Your task to perform on an android device: Open Chrome and go to the settings page Image 0: 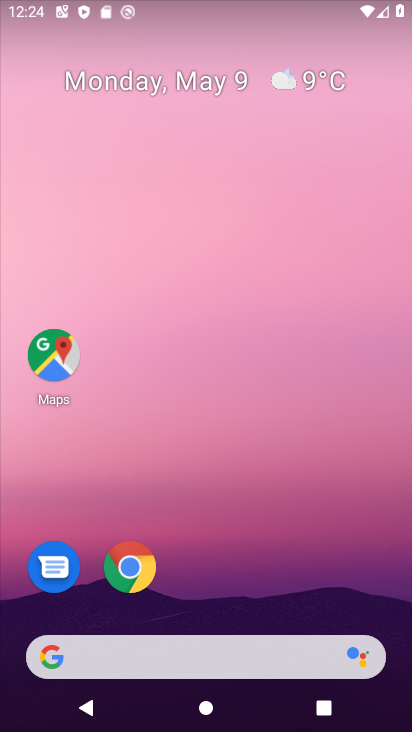
Step 0: drag from (258, 676) to (149, 235)
Your task to perform on an android device: Open Chrome and go to the settings page Image 1: 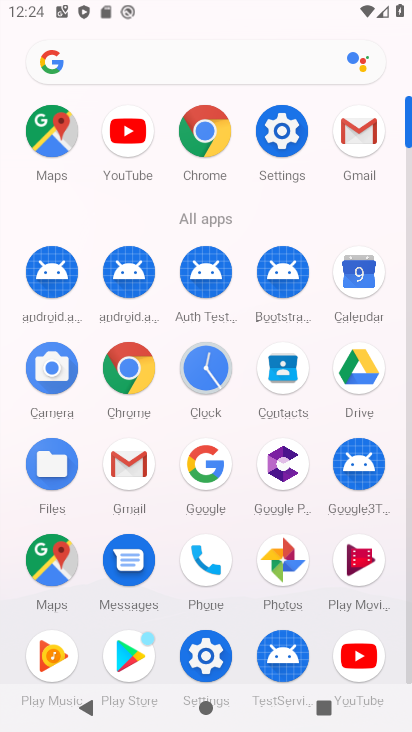
Step 1: click (208, 141)
Your task to perform on an android device: Open Chrome and go to the settings page Image 2: 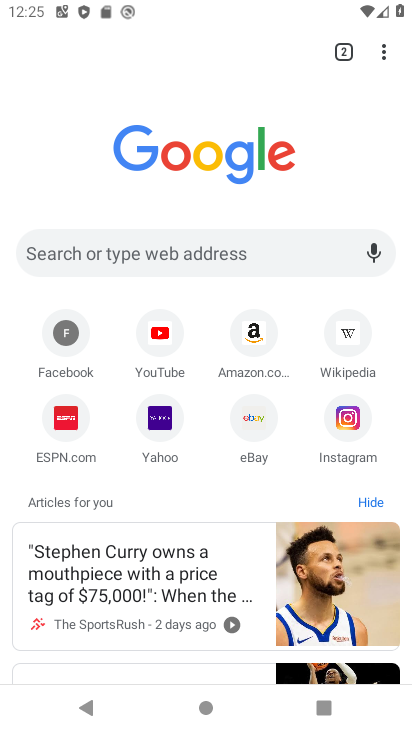
Step 2: click (378, 77)
Your task to perform on an android device: Open Chrome and go to the settings page Image 3: 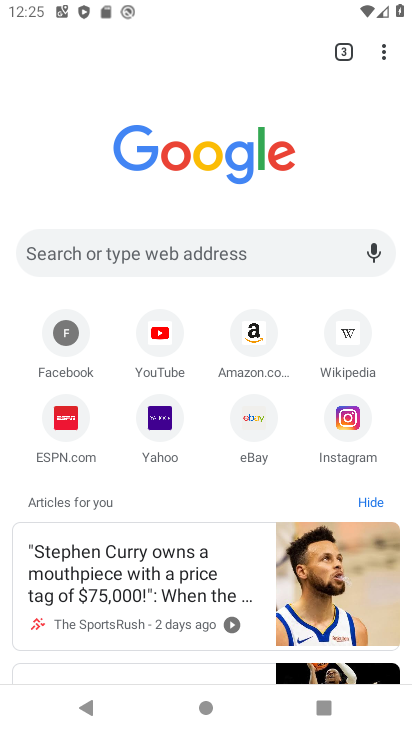
Step 3: click (381, 62)
Your task to perform on an android device: Open Chrome and go to the settings page Image 4: 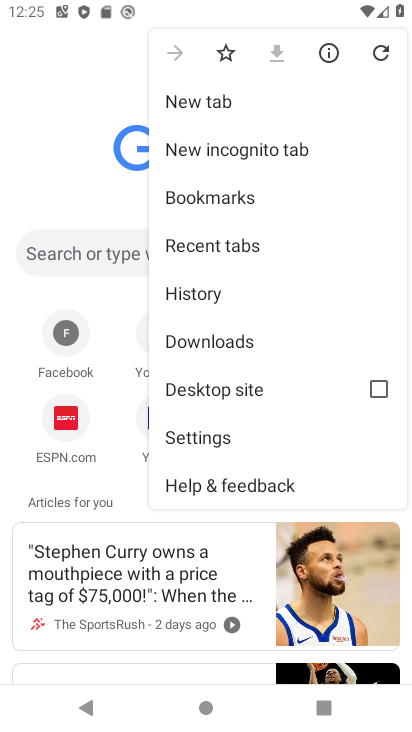
Step 4: click (186, 436)
Your task to perform on an android device: Open Chrome and go to the settings page Image 5: 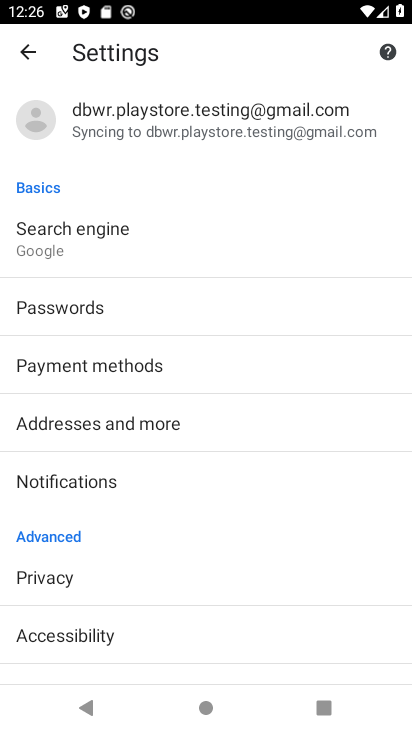
Step 5: task complete